Your task to perform on an android device: Show the shopping cart on bestbuy. Image 0: 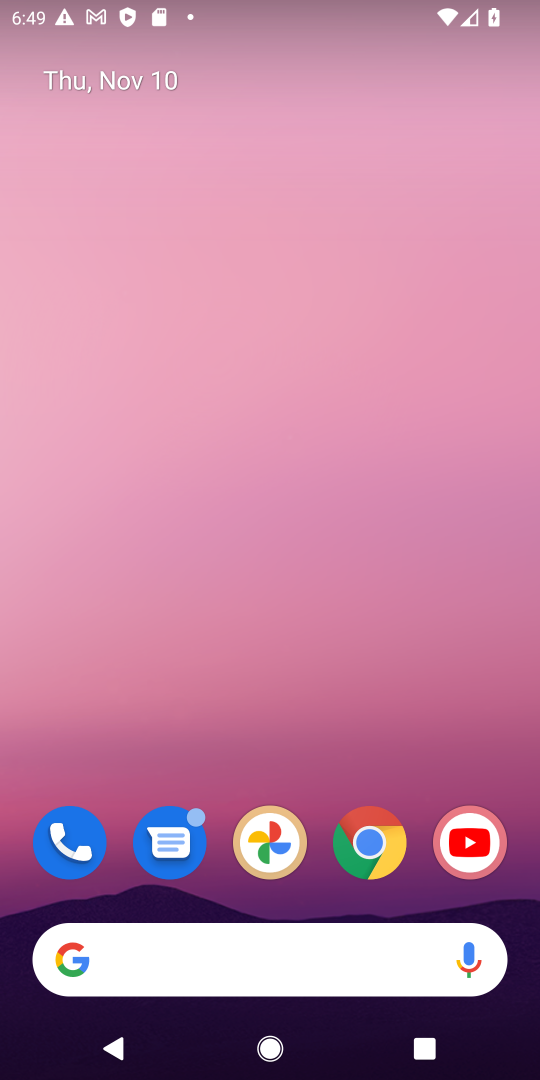
Step 0: click (370, 850)
Your task to perform on an android device: Show the shopping cart on bestbuy. Image 1: 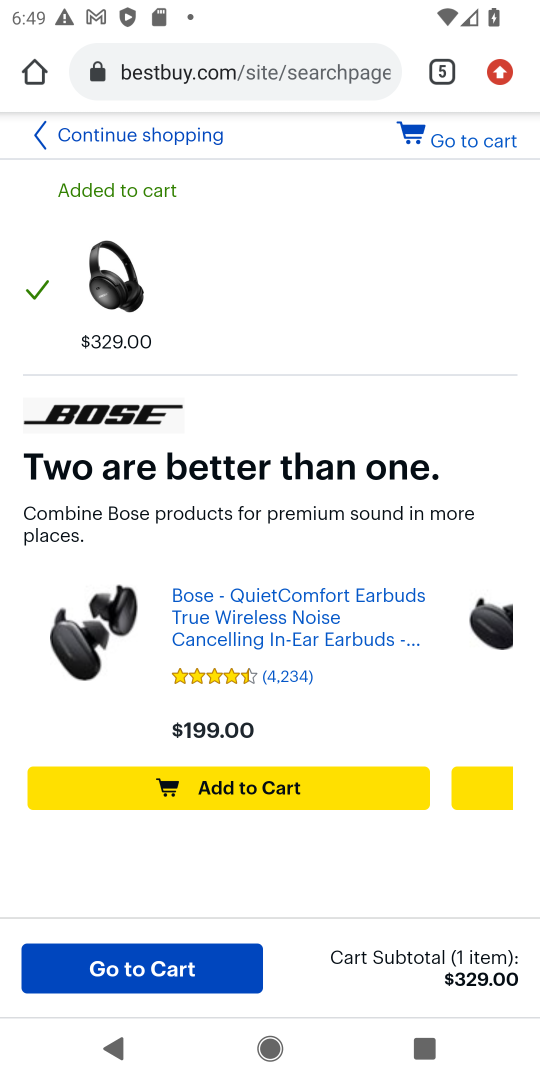
Step 1: click (174, 960)
Your task to perform on an android device: Show the shopping cart on bestbuy. Image 2: 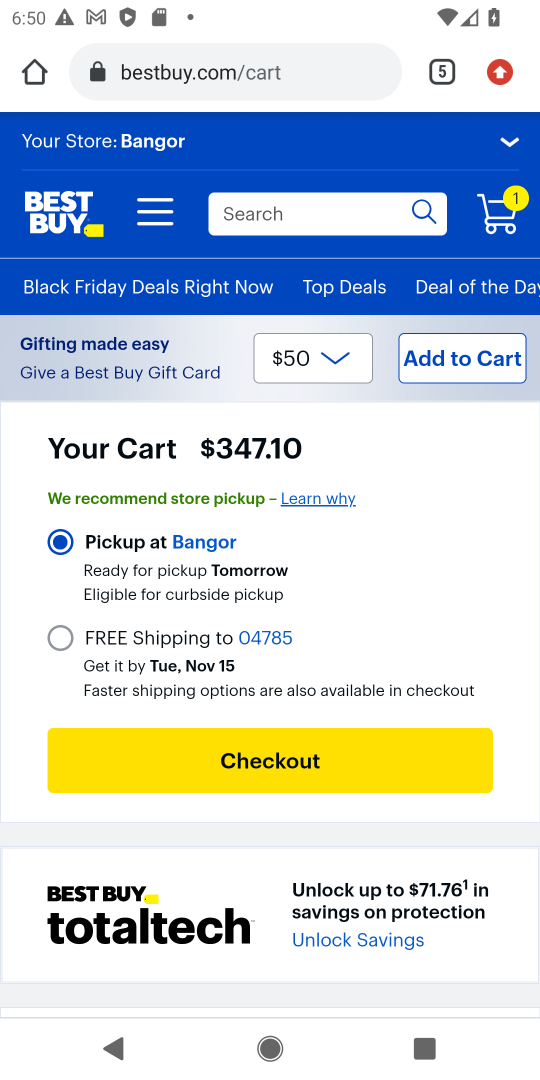
Step 2: task complete